Your task to perform on an android device: Empty the shopping cart on amazon. Add "usb-b" to the cart on amazon Image 0: 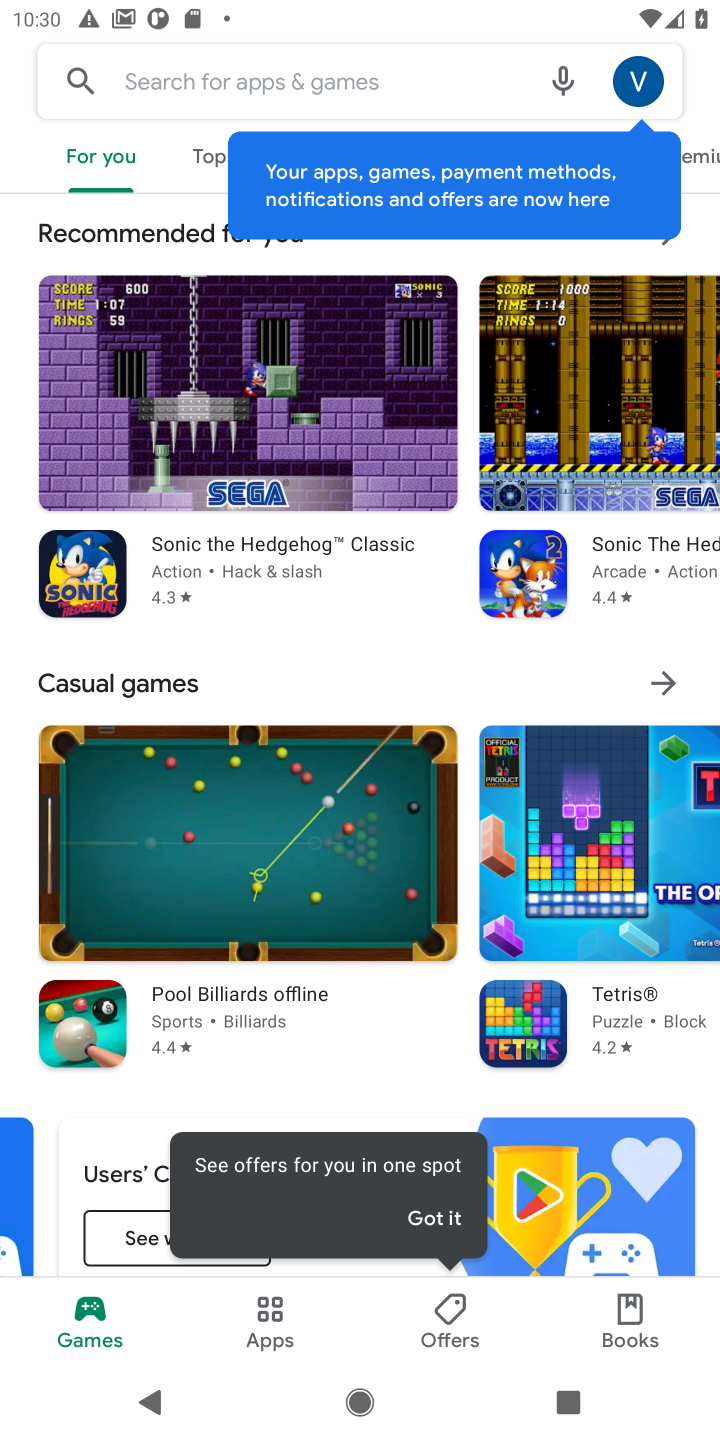
Step 0: press home button
Your task to perform on an android device: Empty the shopping cart on amazon. Add "usb-b" to the cart on amazon Image 1: 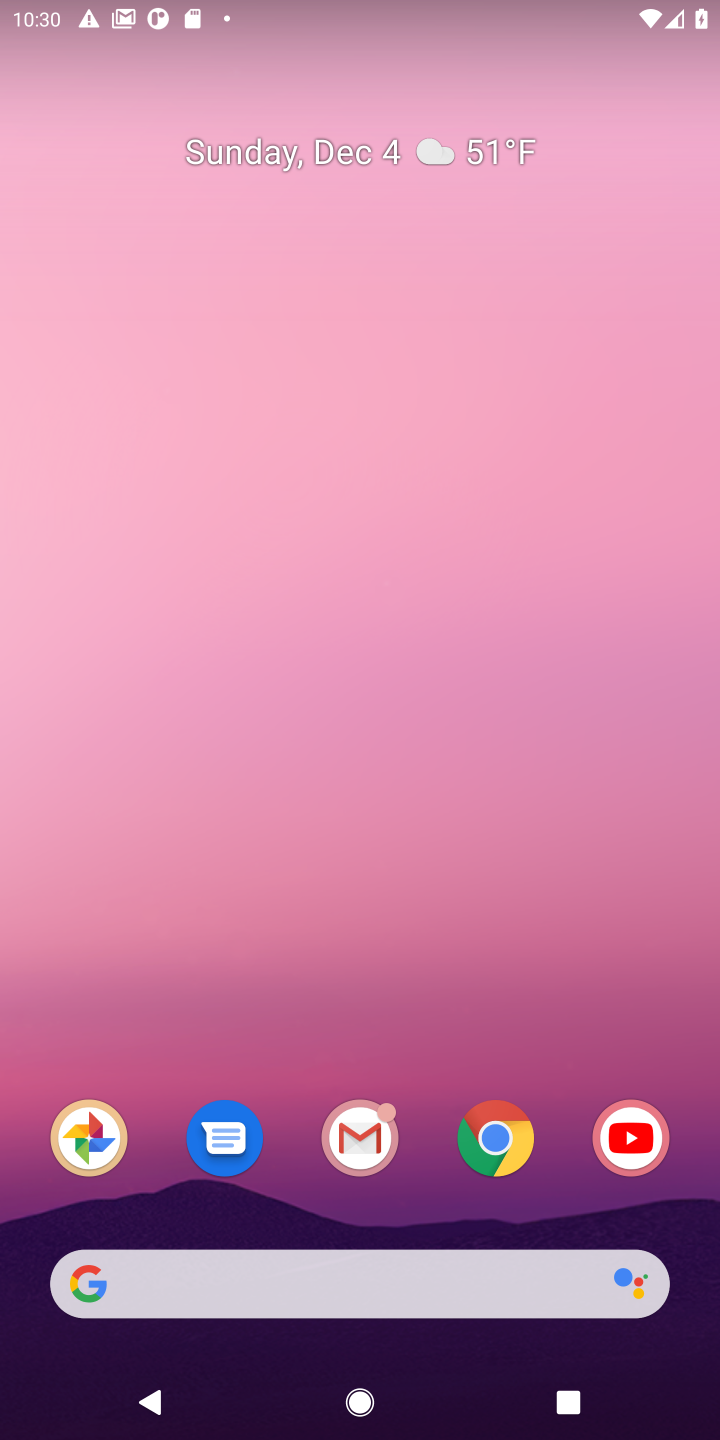
Step 1: click (492, 1141)
Your task to perform on an android device: Empty the shopping cart on amazon. Add "usb-b" to the cart on amazon Image 2: 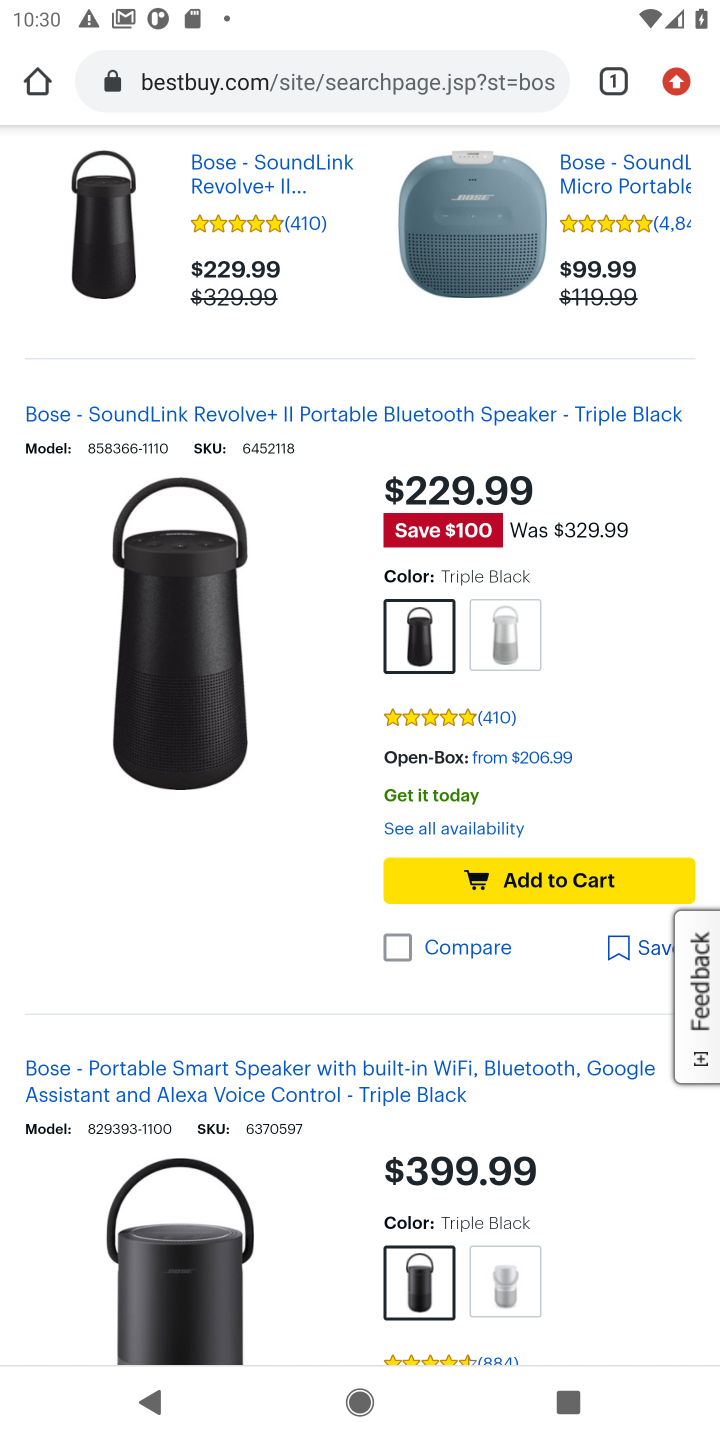
Step 2: click (456, 67)
Your task to perform on an android device: Empty the shopping cart on amazon. Add "usb-b" to the cart on amazon Image 3: 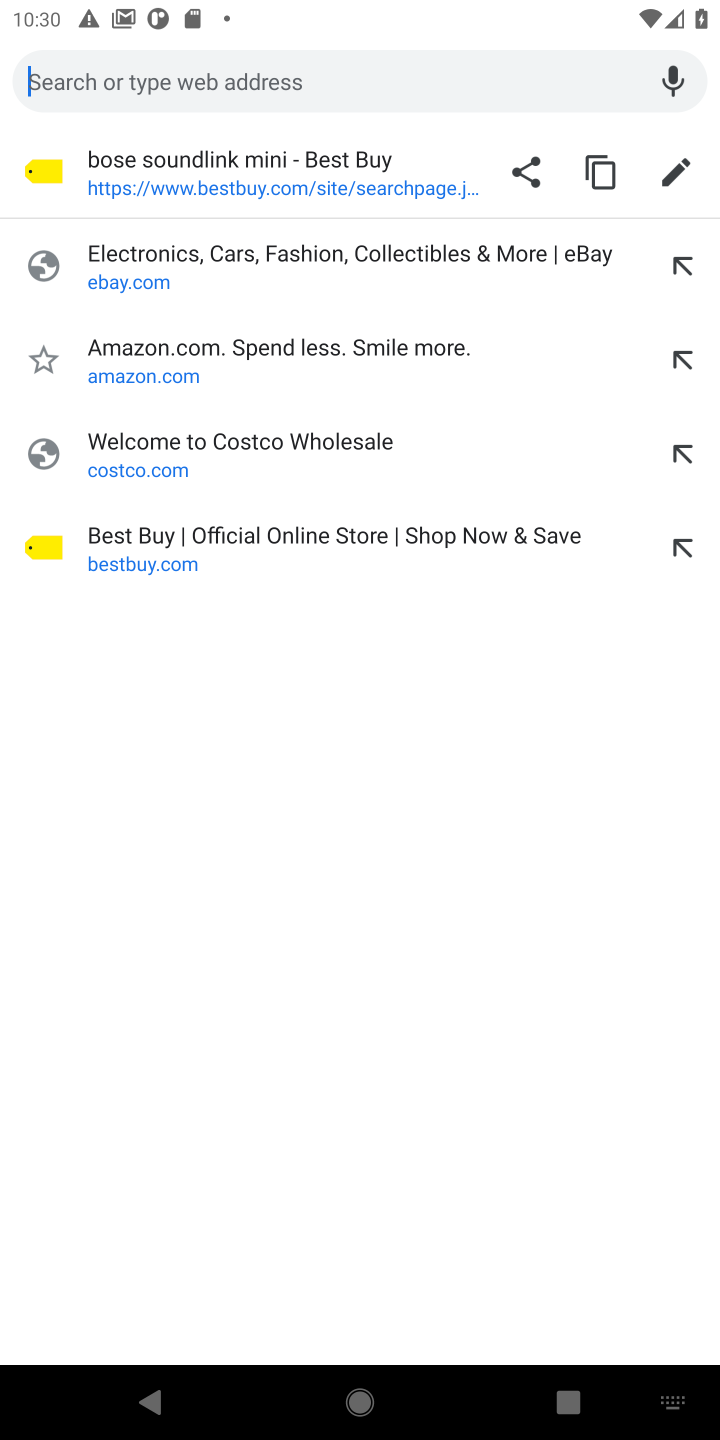
Step 3: click (257, 352)
Your task to perform on an android device: Empty the shopping cart on amazon. Add "usb-b" to the cart on amazon Image 4: 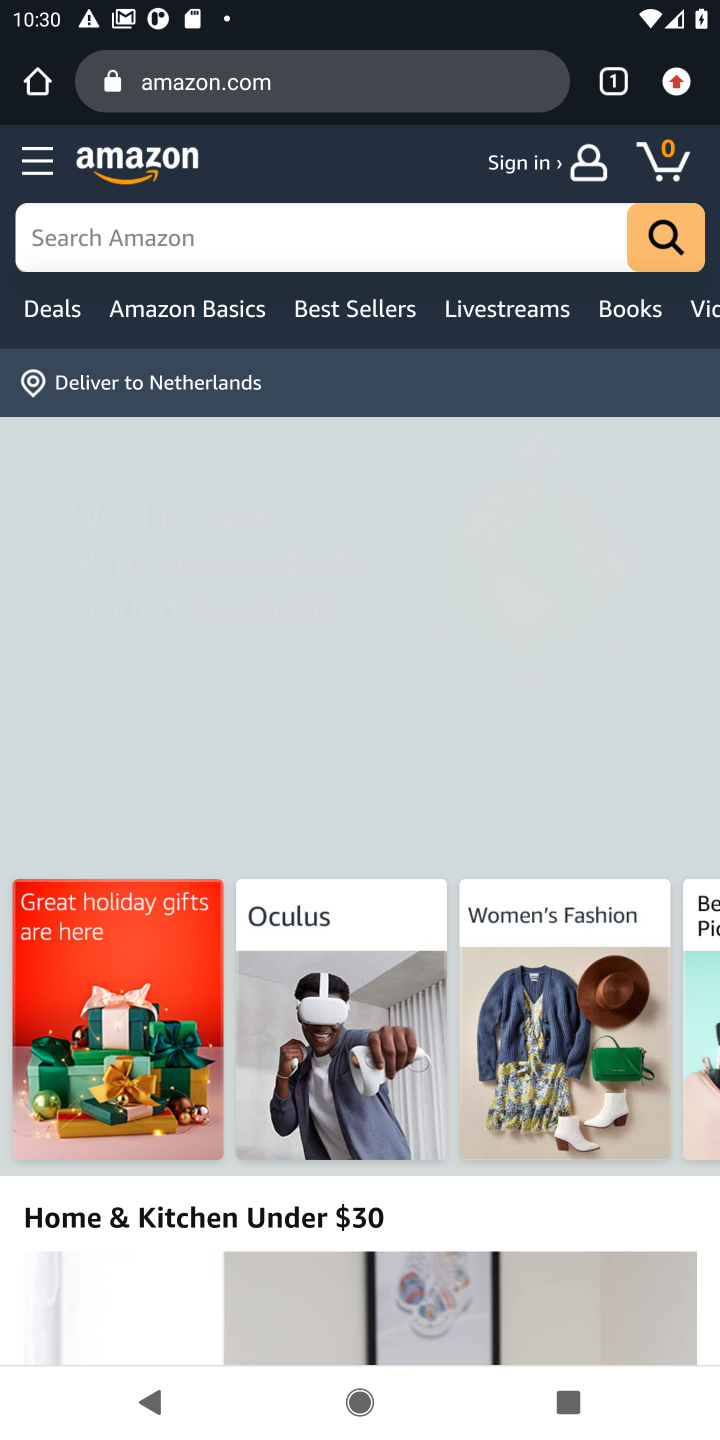
Step 4: click (530, 239)
Your task to perform on an android device: Empty the shopping cart on amazon. Add "usb-b" to the cart on amazon Image 5: 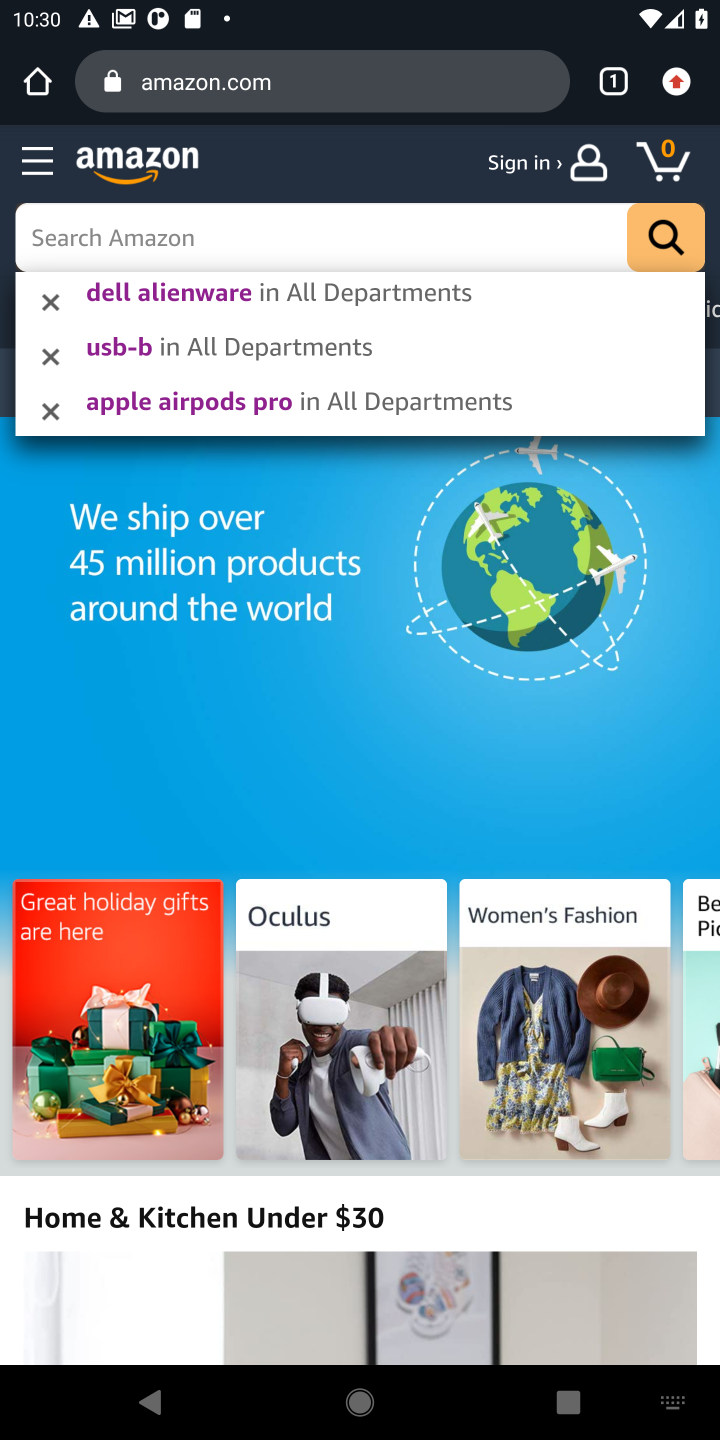
Step 5: press enter
Your task to perform on an android device: Empty the shopping cart on amazon. Add "usb-b" to the cart on amazon Image 6: 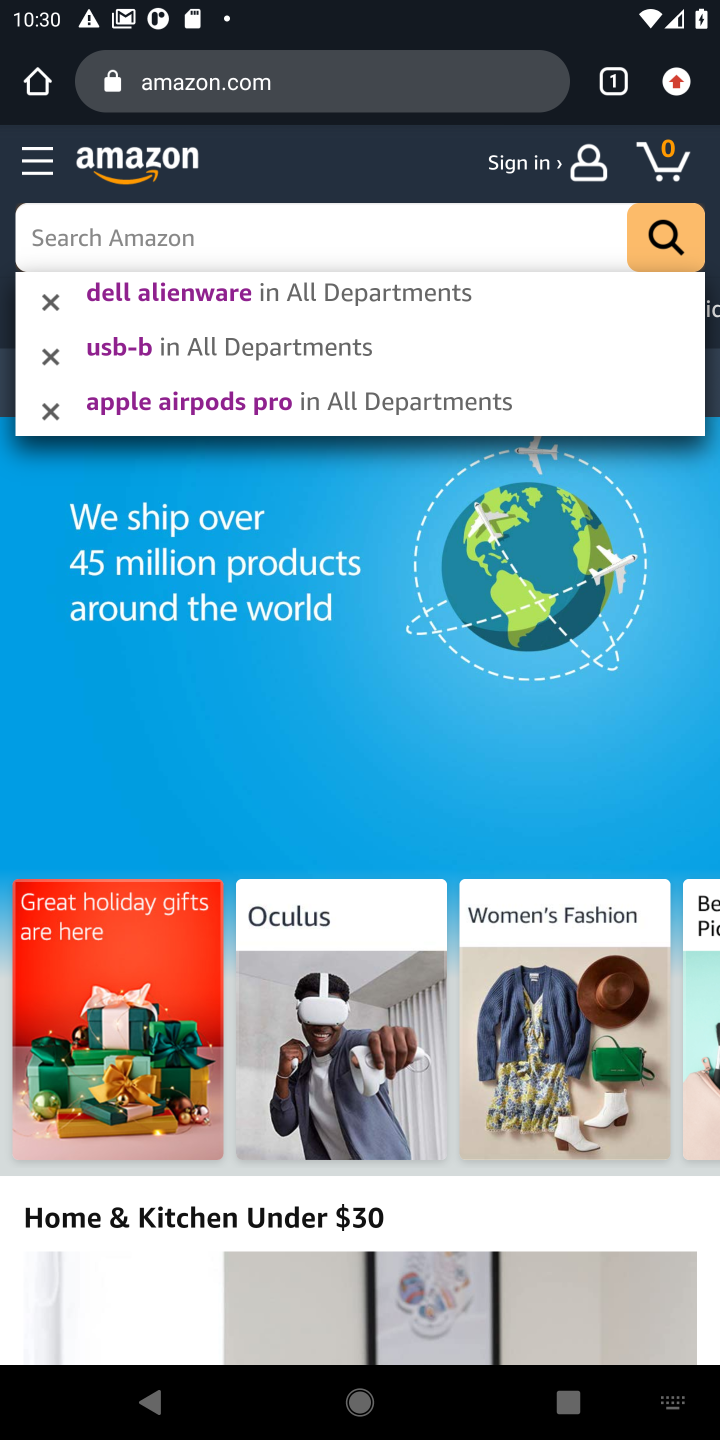
Step 6: type "usb-b"
Your task to perform on an android device: Empty the shopping cart on amazon. Add "usb-b" to the cart on amazon Image 7: 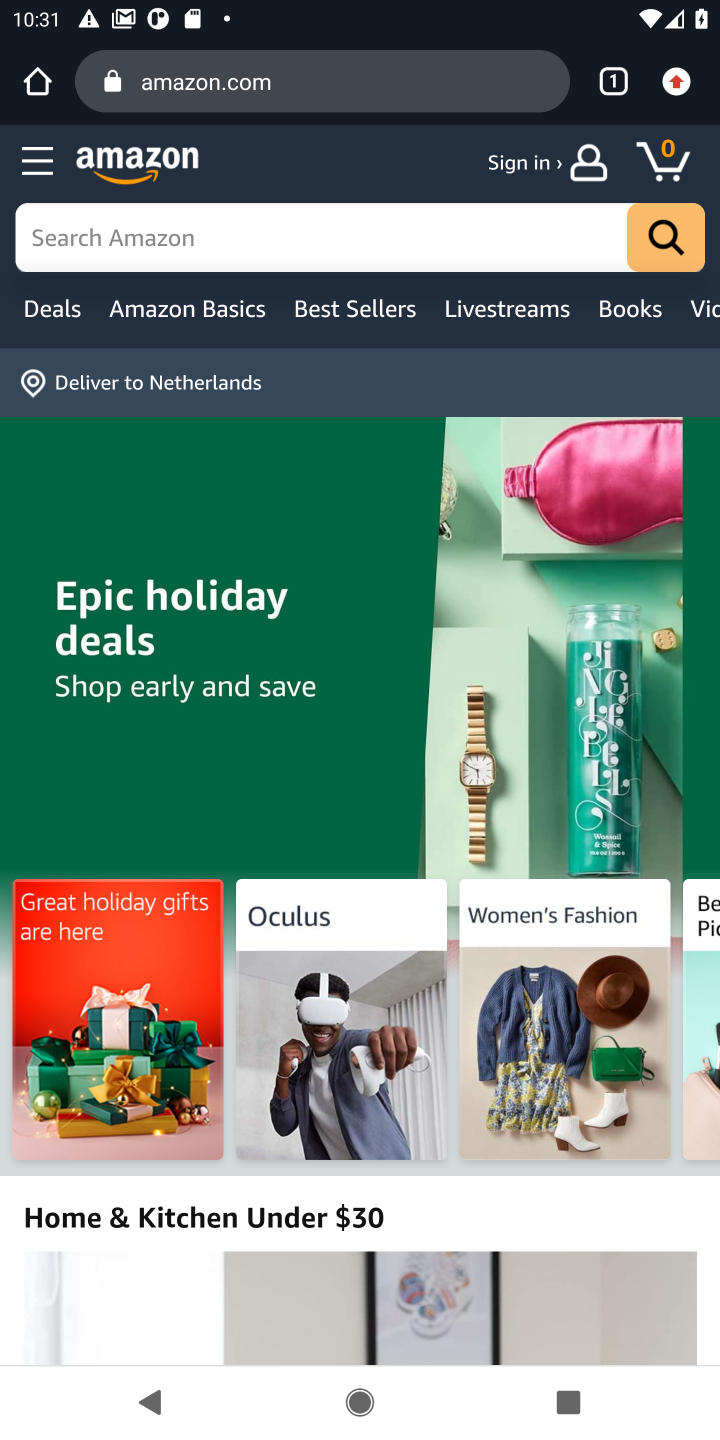
Step 7: click (446, 231)
Your task to perform on an android device: Empty the shopping cart on amazon. Add "usb-b" to the cart on amazon Image 8: 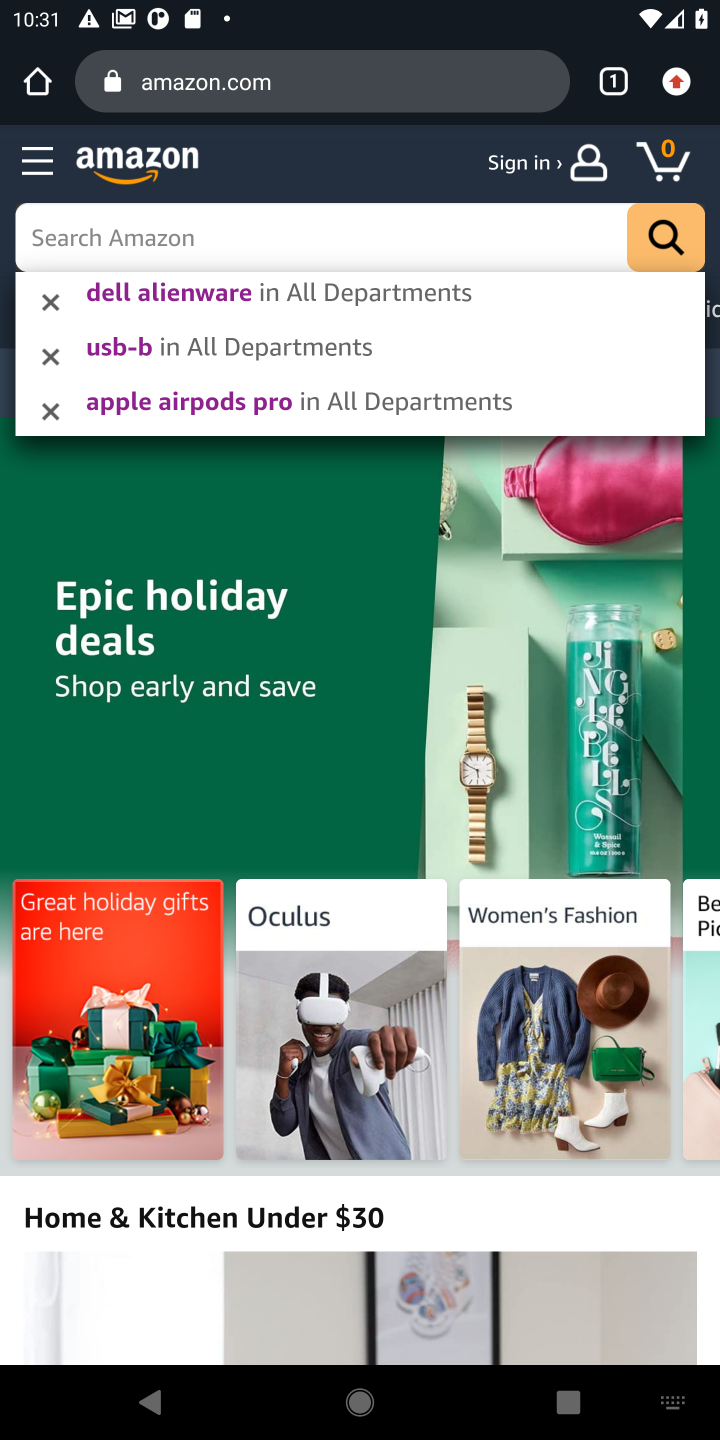
Step 8: type "usb-b"
Your task to perform on an android device: Empty the shopping cart on amazon. Add "usb-b" to the cart on amazon Image 9: 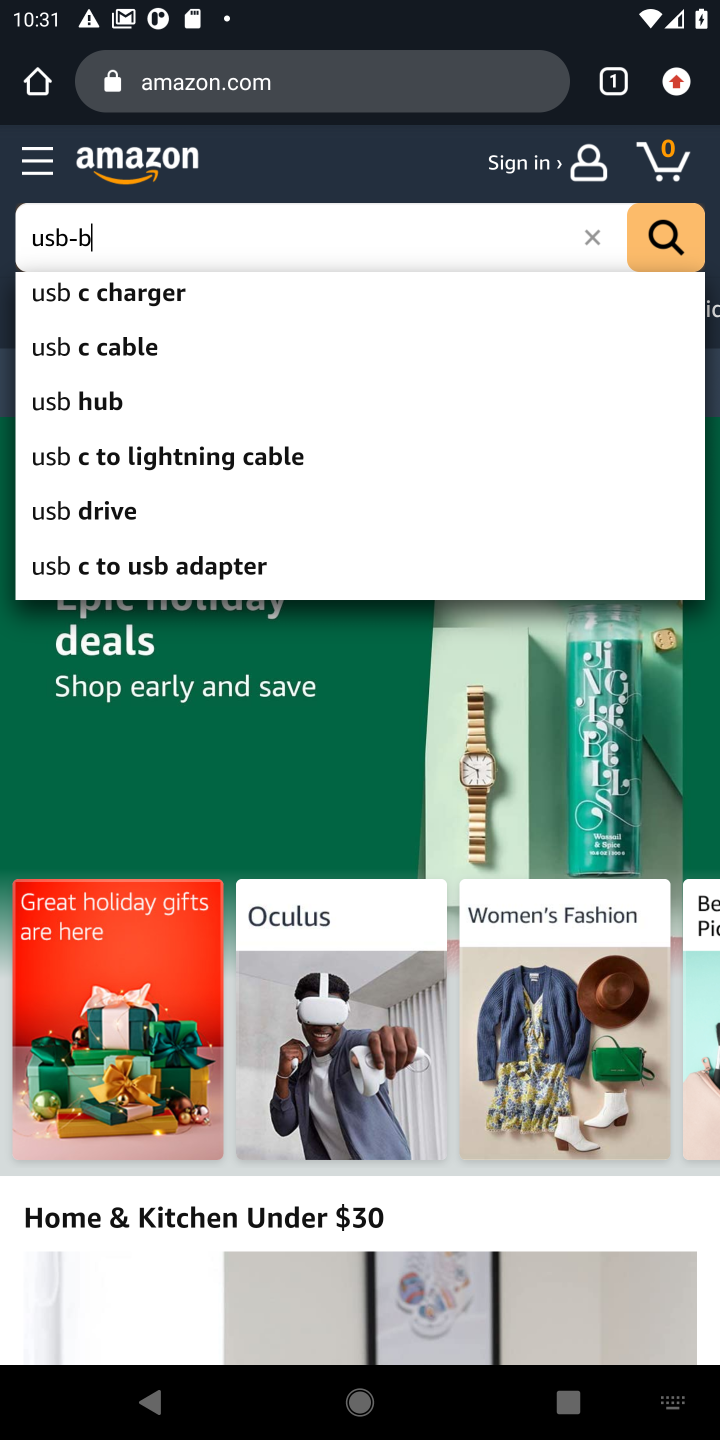
Step 9: press enter
Your task to perform on an android device: Empty the shopping cart on amazon. Add "usb-b" to the cart on amazon Image 10: 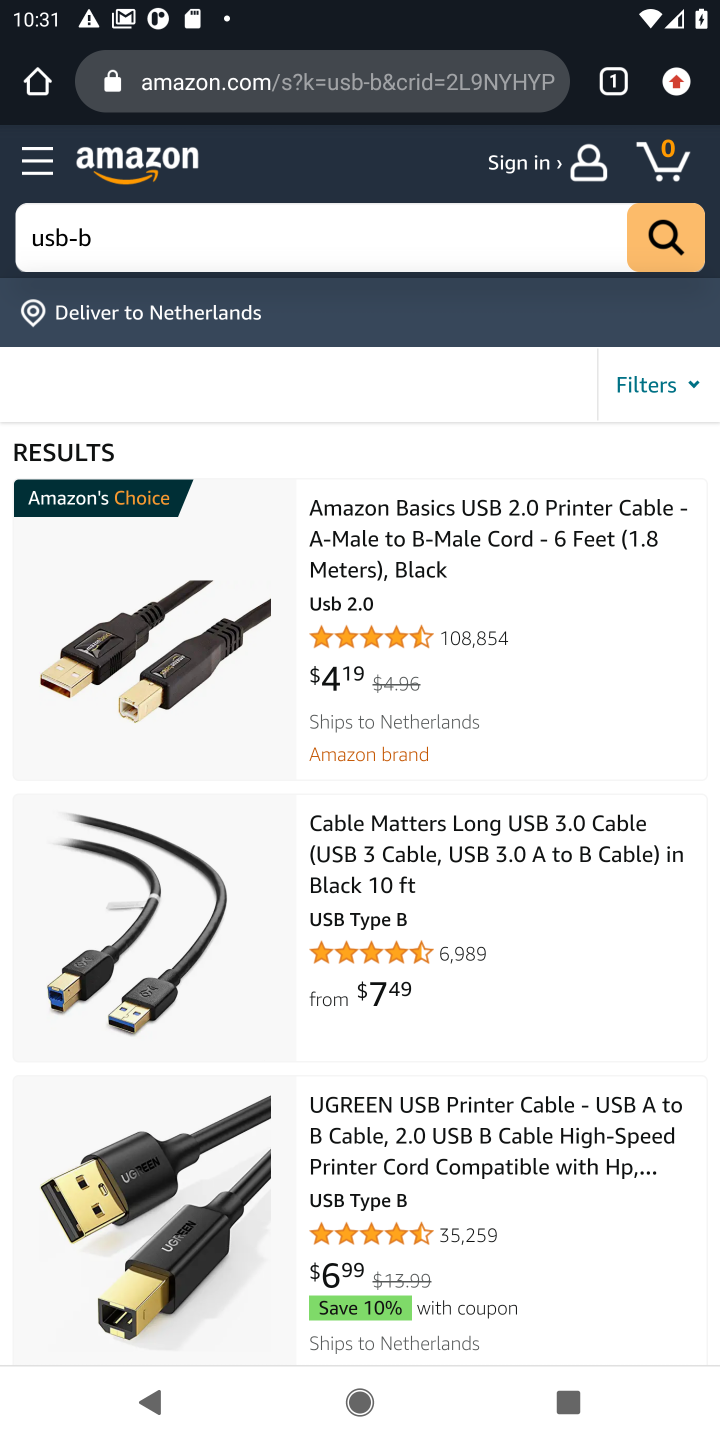
Step 10: task complete